Your task to perform on an android device: turn on airplane mode Image 0: 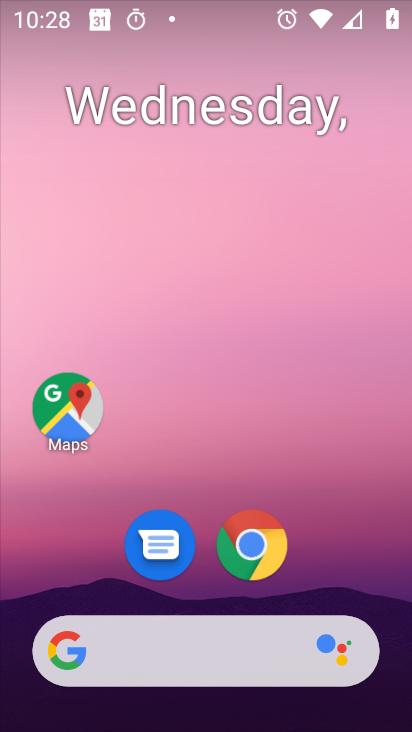
Step 0: press home button
Your task to perform on an android device: turn on airplane mode Image 1: 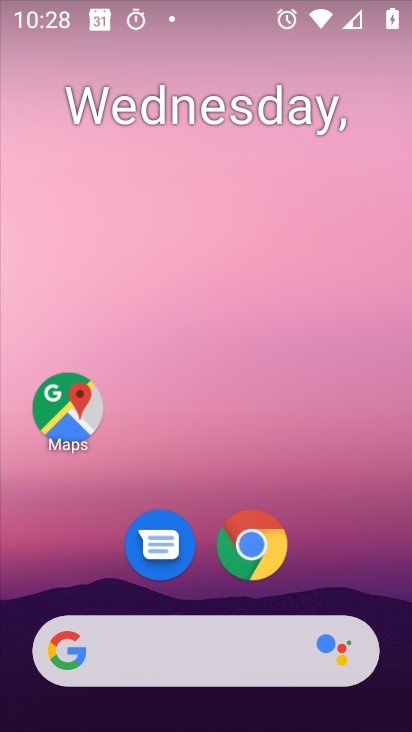
Step 1: drag from (170, 629) to (310, 84)
Your task to perform on an android device: turn on airplane mode Image 2: 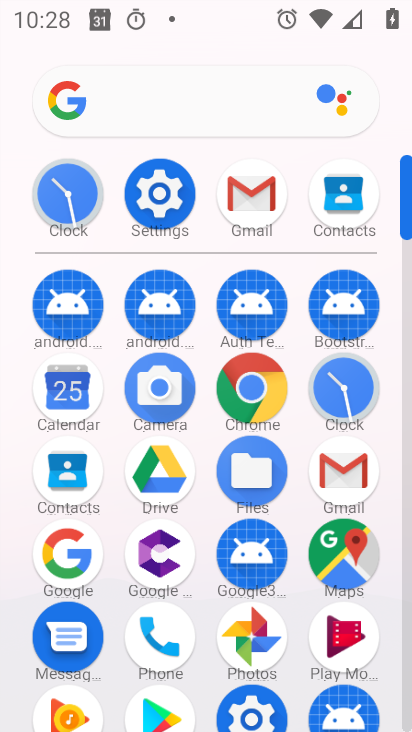
Step 2: click (173, 206)
Your task to perform on an android device: turn on airplane mode Image 3: 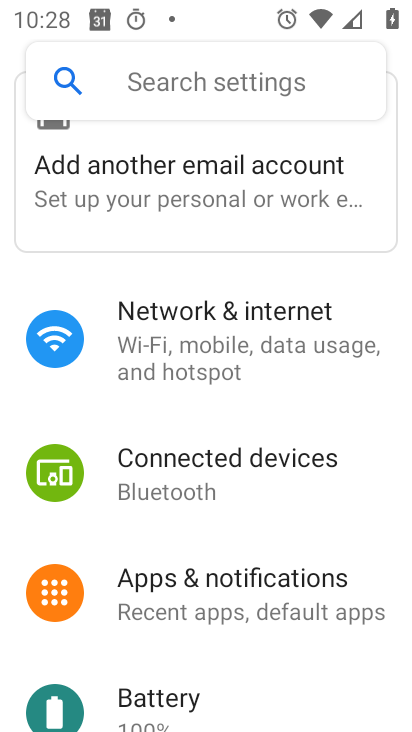
Step 3: click (243, 321)
Your task to perform on an android device: turn on airplane mode Image 4: 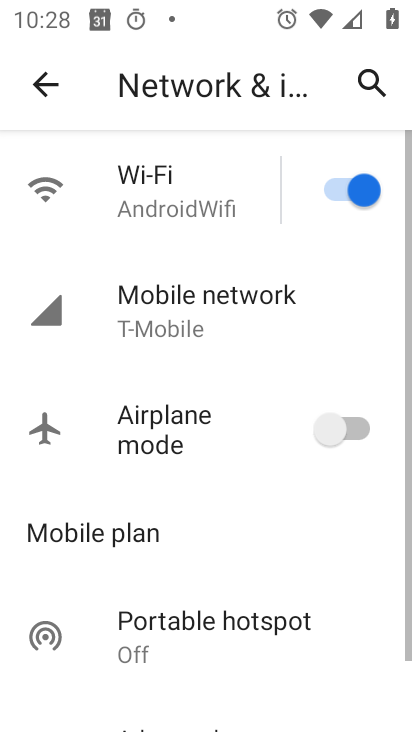
Step 4: click (362, 426)
Your task to perform on an android device: turn on airplane mode Image 5: 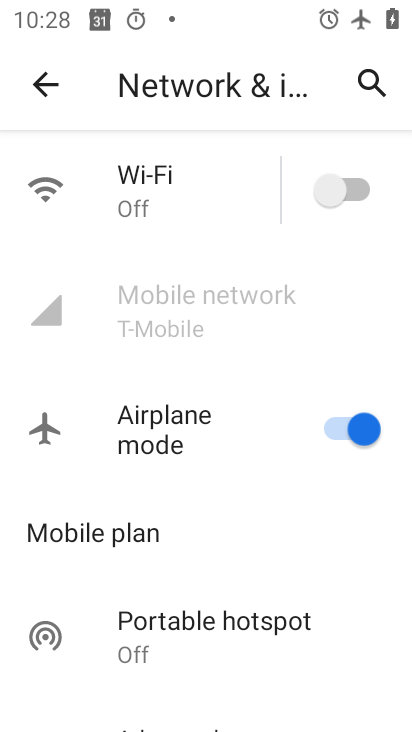
Step 5: task complete